Your task to perform on an android device: turn on the 24-hour format for clock Image 0: 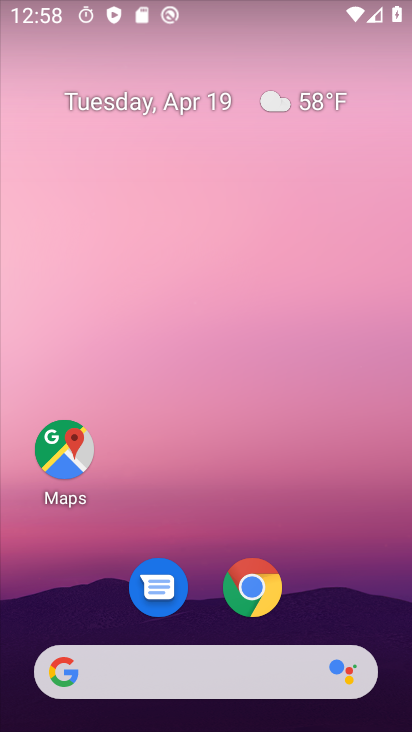
Step 0: drag from (361, 597) to (366, 190)
Your task to perform on an android device: turn on the 24-hour format for clock Image 1: 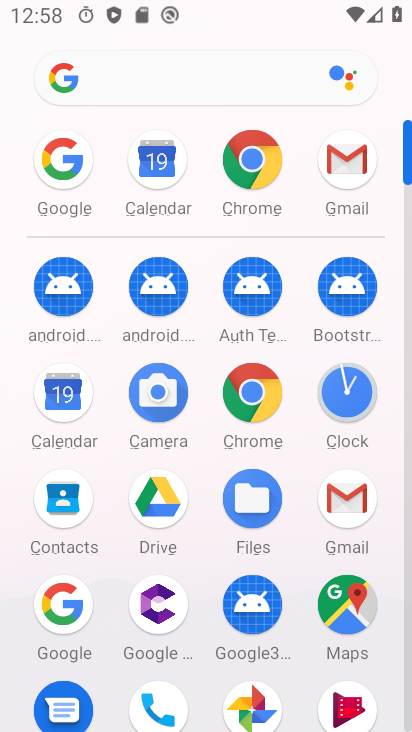
Step 1: click (355, 399)
Your task to perform on an android device: turn on the 24-hour format for clock Image 2: 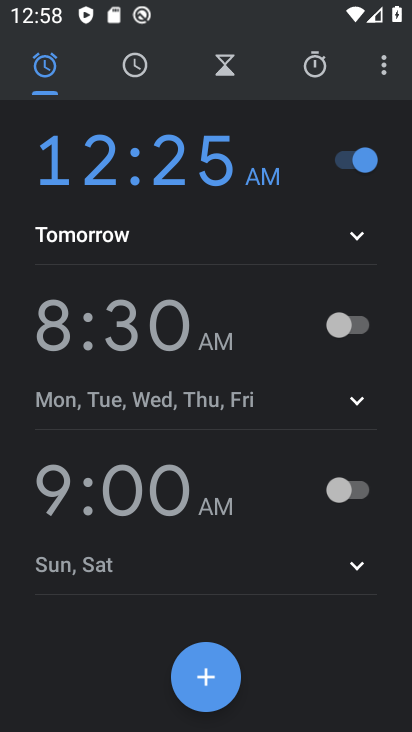
Step 2: click (387, 79)
Your task to perform on an android device: turn on the 24-hour format for clock Image 3: 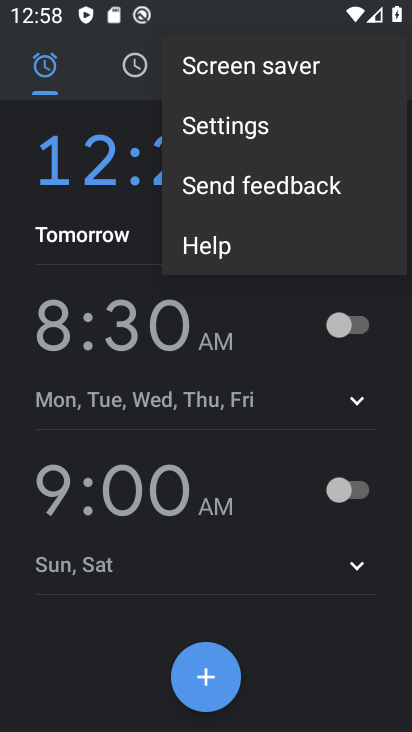
Step 3: click (251, 131)
Your task to perform on an android device: turn on the 24-hour format for clock Image 4: 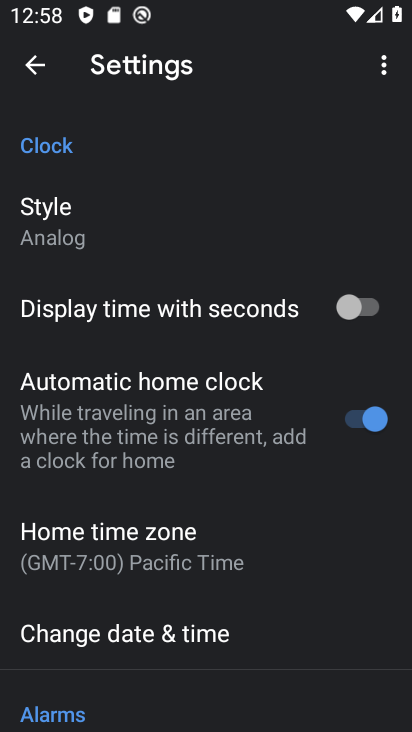
Step 4: click (246, 636)
Your task to perform on an android device: turn on the 24-hour format for clock Image 5: 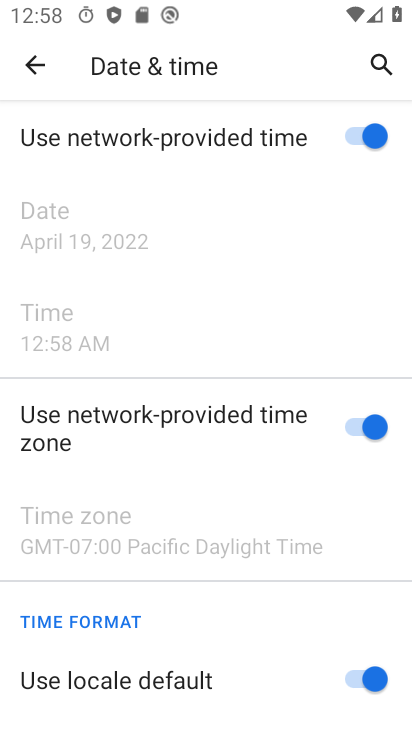
Step 5: drag from (252, 598) to (263, 257)
Your task to perform on an android device: turn on the 24-hour format for clock Image 6: 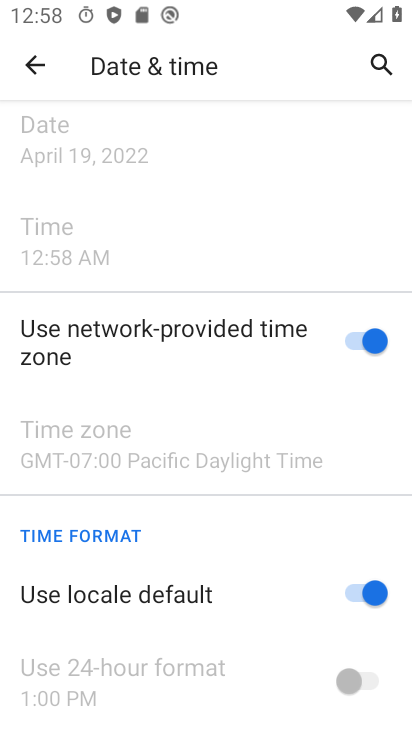
Step 6: click (354, 596)
Your task to perform on an android device: turn on the 24-hour format for clock Image 7: 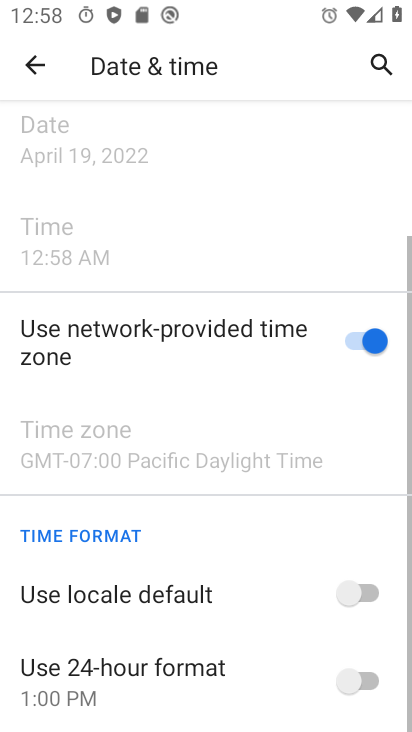
Step 7: click (368, 684)
Your task to perform on an android device: turn on the 24-hour format for clock Image 8: 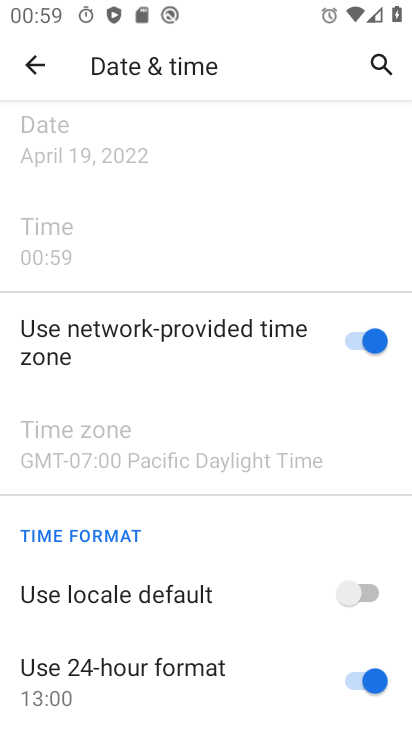
Step 8: task complete